Your task to perform on an android device: What's the news in Bangladesh? Image 0: 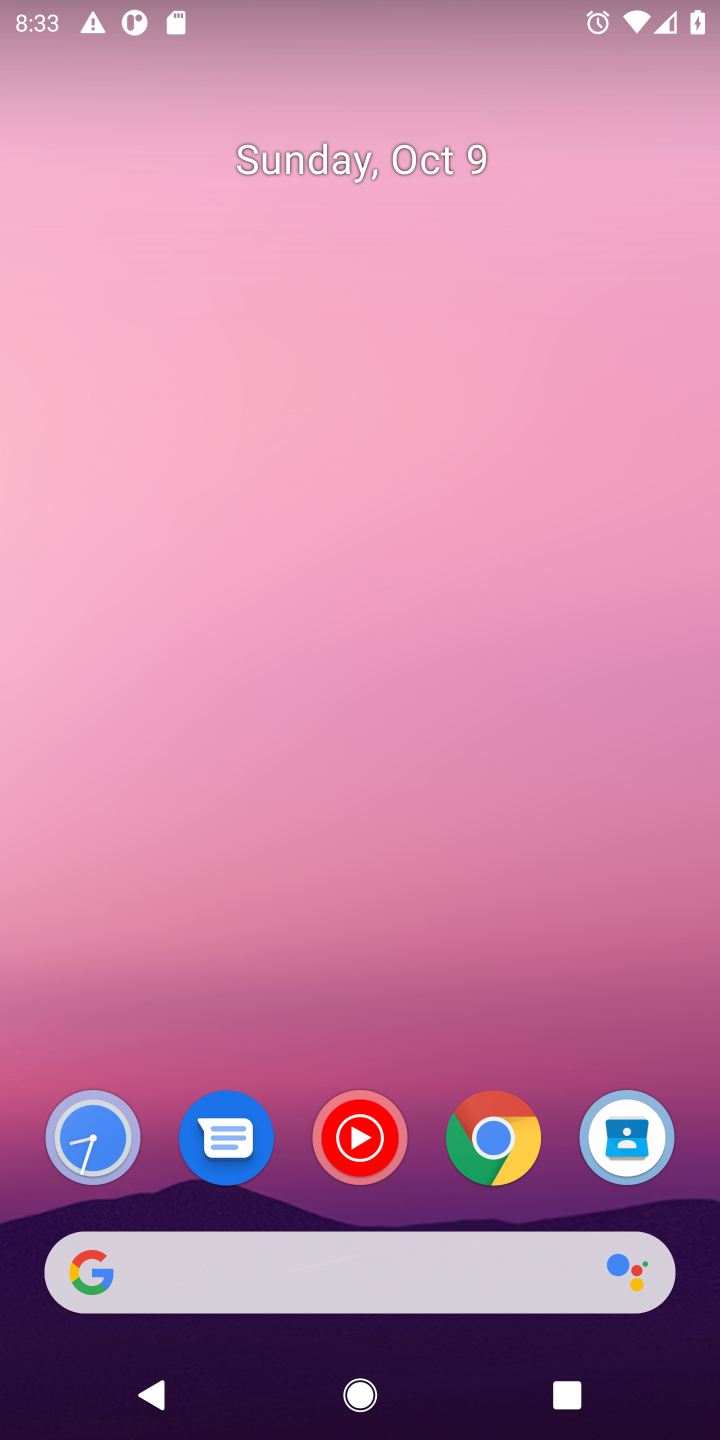
Step 0: click (298, 581)
Your task to perform on an android device: What's the news in Bangladesh? Image 1: 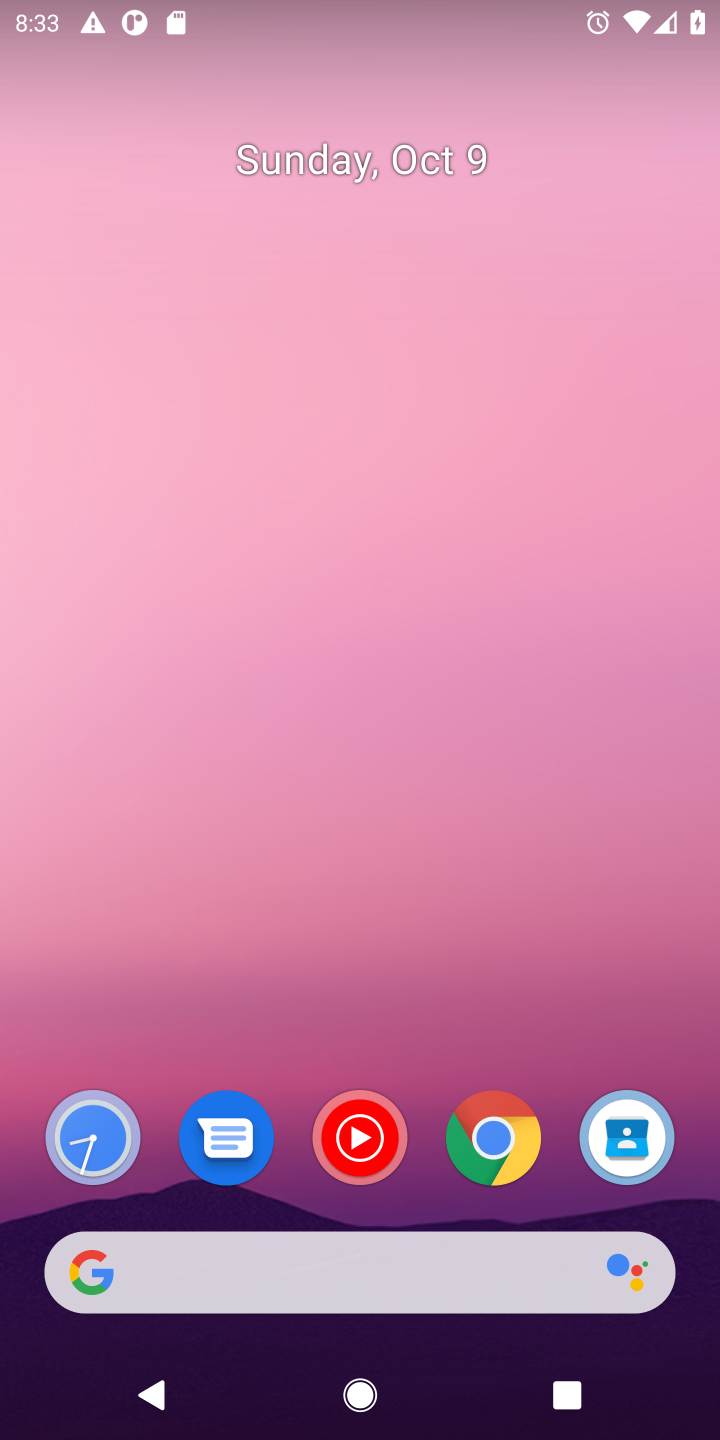
Step 1: drag from (328, 1262) to (325, 426)
Your task to perform on an android device: What's the news in Bangladesh? Image 2: 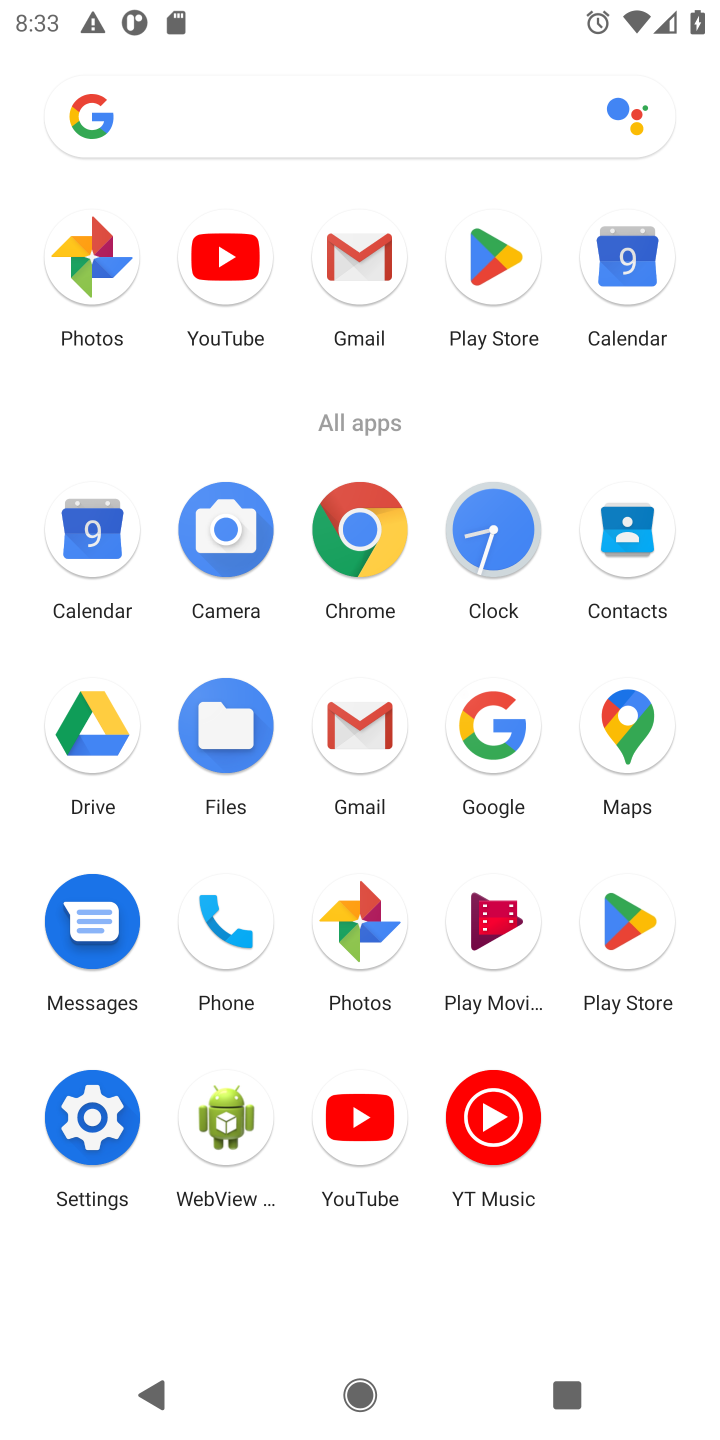
Step 2: click (479, 737)
Your task to perform on an android device: What's the news in Bangladesh? Image 3: 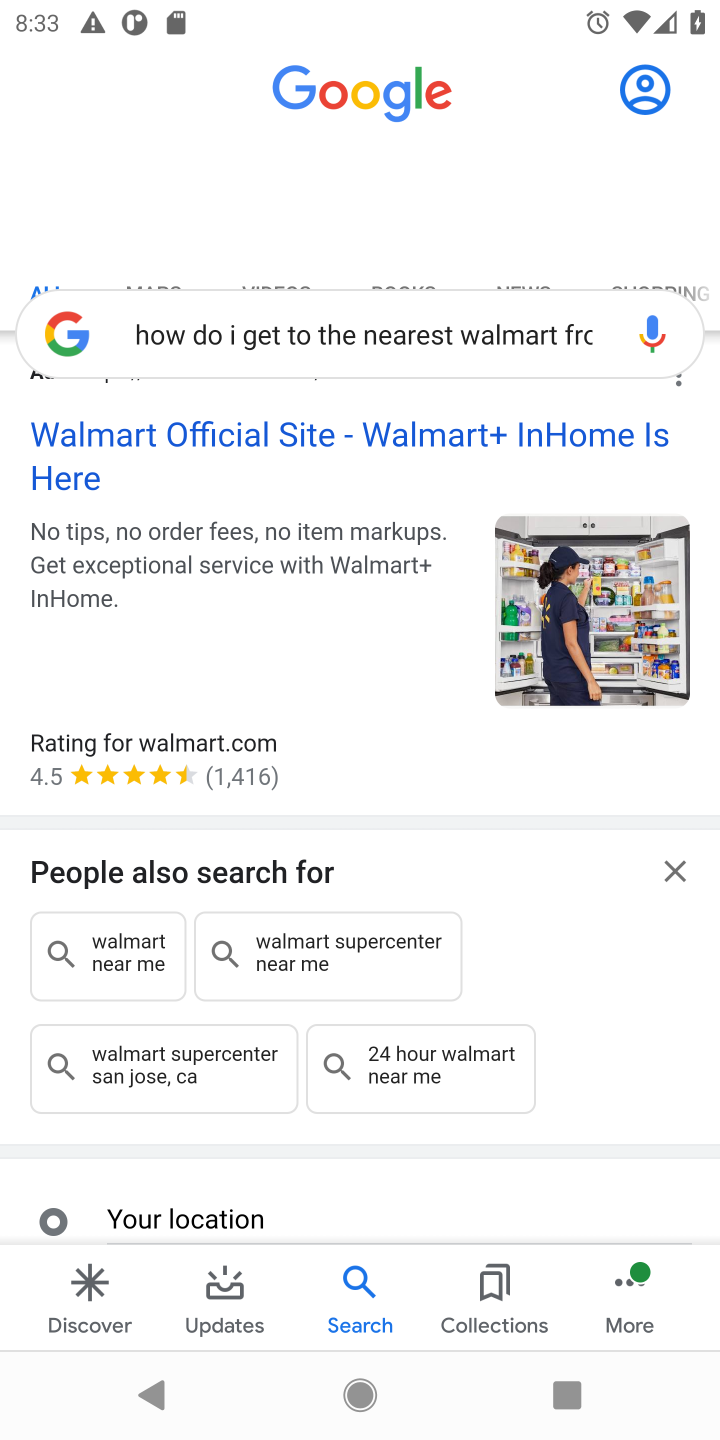
Step 3: click (345, 330)
Your task to perform on an android device: What's the news in Bangladesh? Image 4: 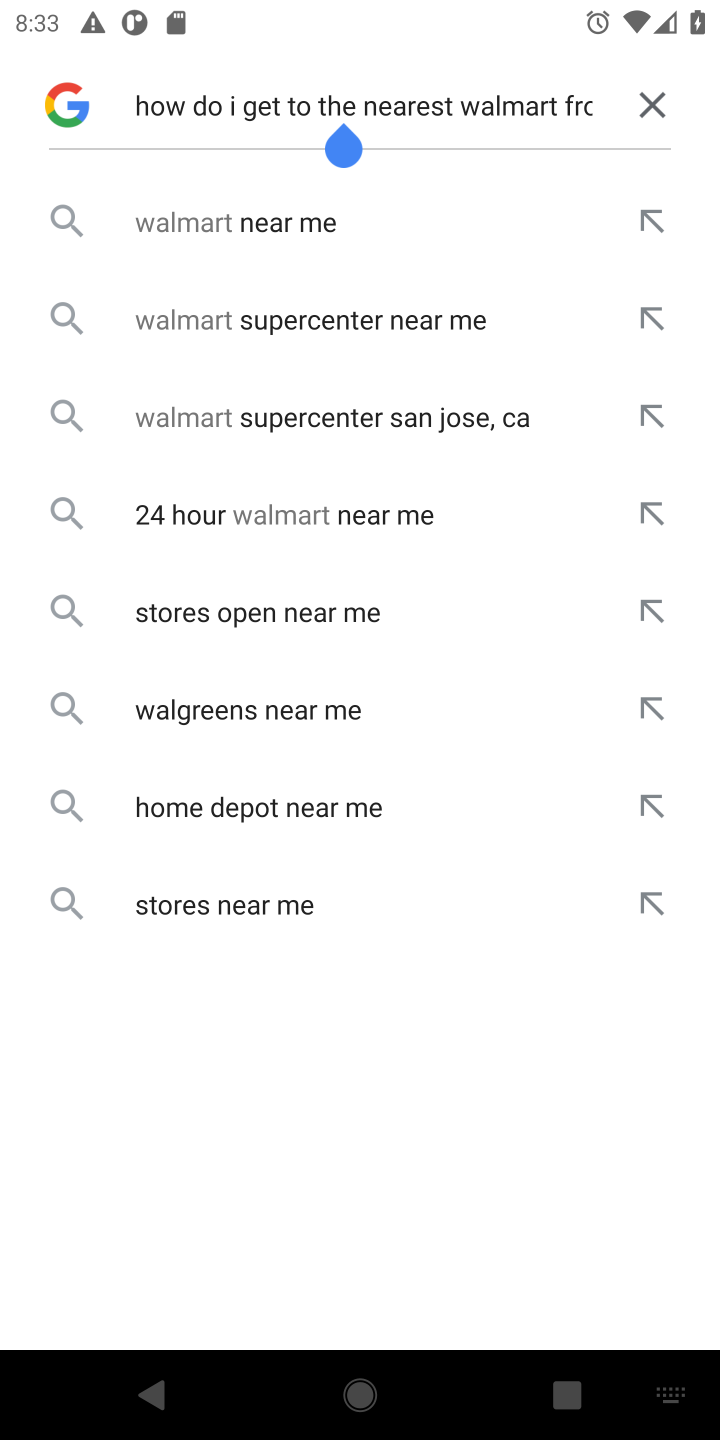
Step 4: click (636, 93)
Your task to perform on an android device: What's the news in Bangladesh? Image 5: 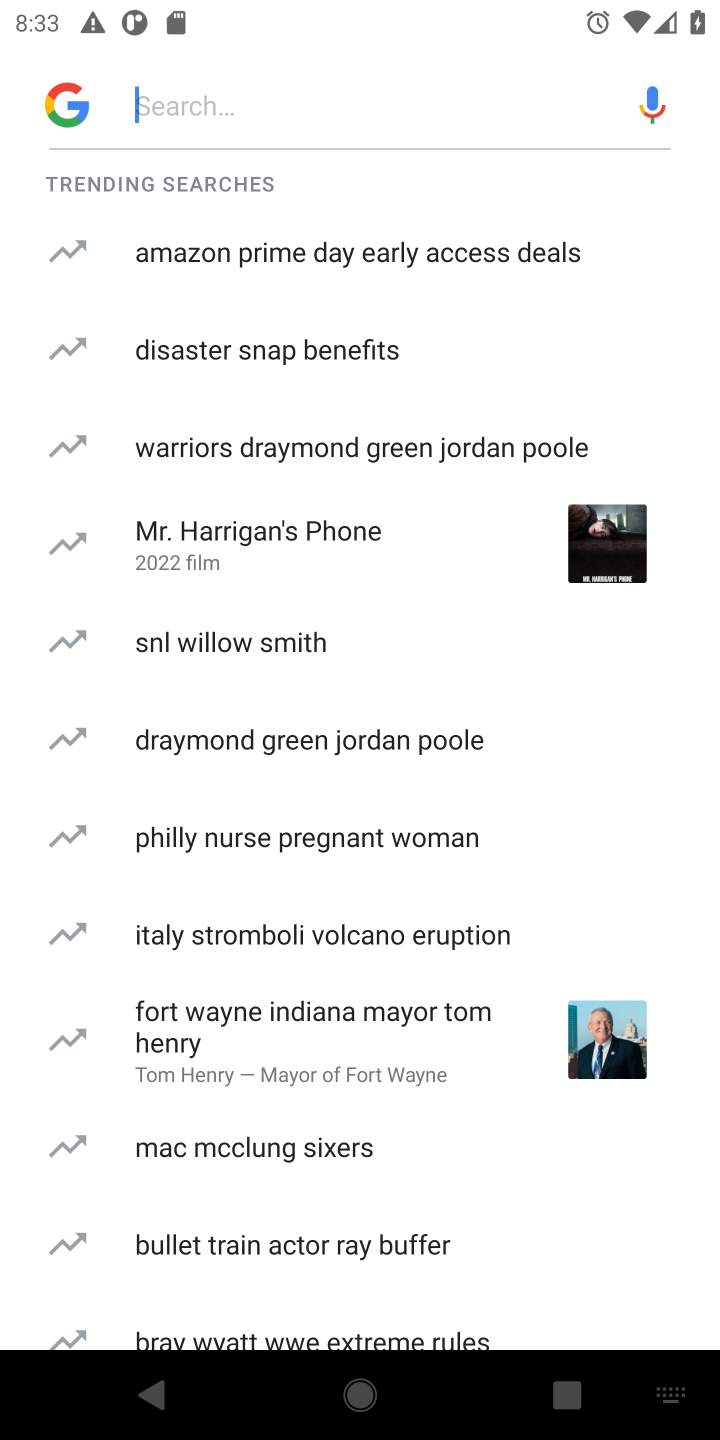
Step 5: click (325, 101)
Your task to perform on an android device: What's the news in Bangladesh? Image 6: 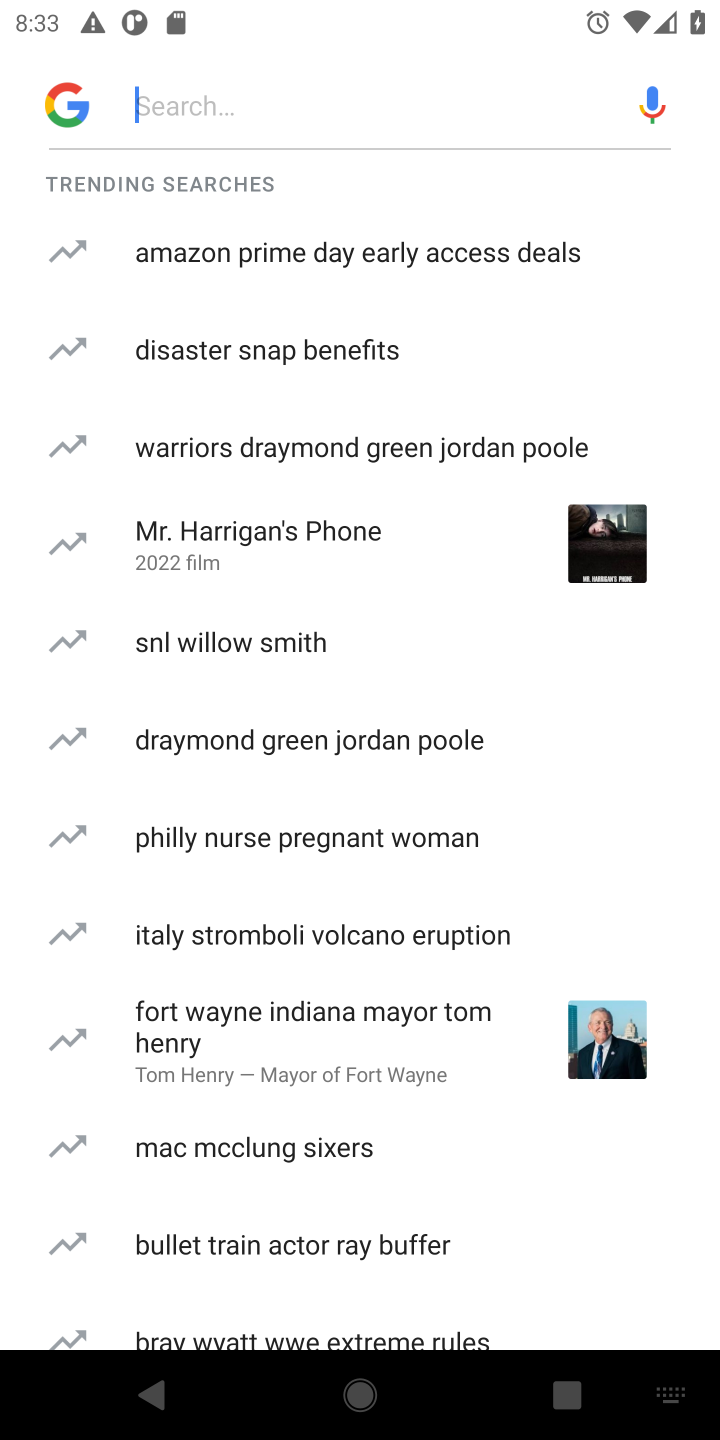
Step 6: type "What's the news in Bangladesh? "
Your task to perform on an android device: What's the news in Bangladesh? Image 7: 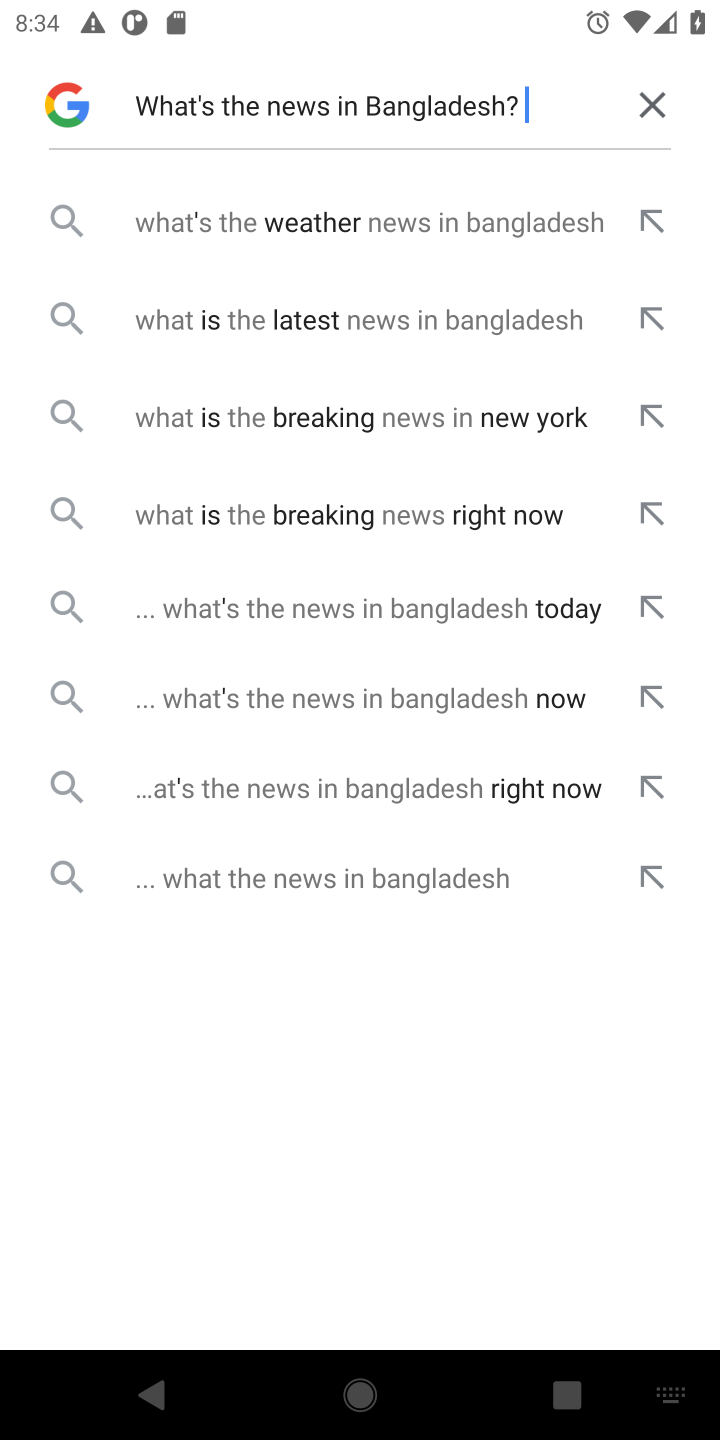
Step 7: click (296, 229)
Your task to perform on an android device: What's the news in Bangladesh? Image 8: 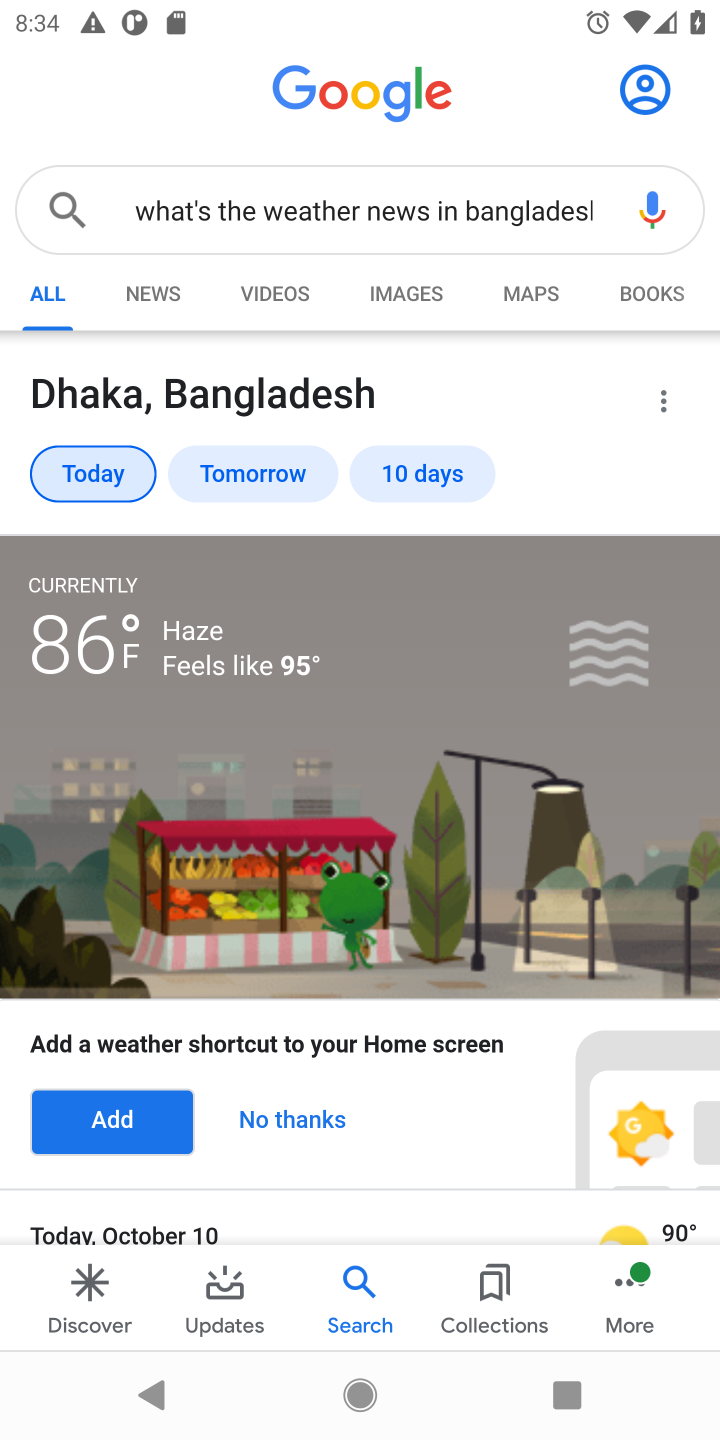
Step 8: drag from (288, 1130) to (339, 459)
Your task to perform on an android device: What's the news in Bangladesh? Image 9: 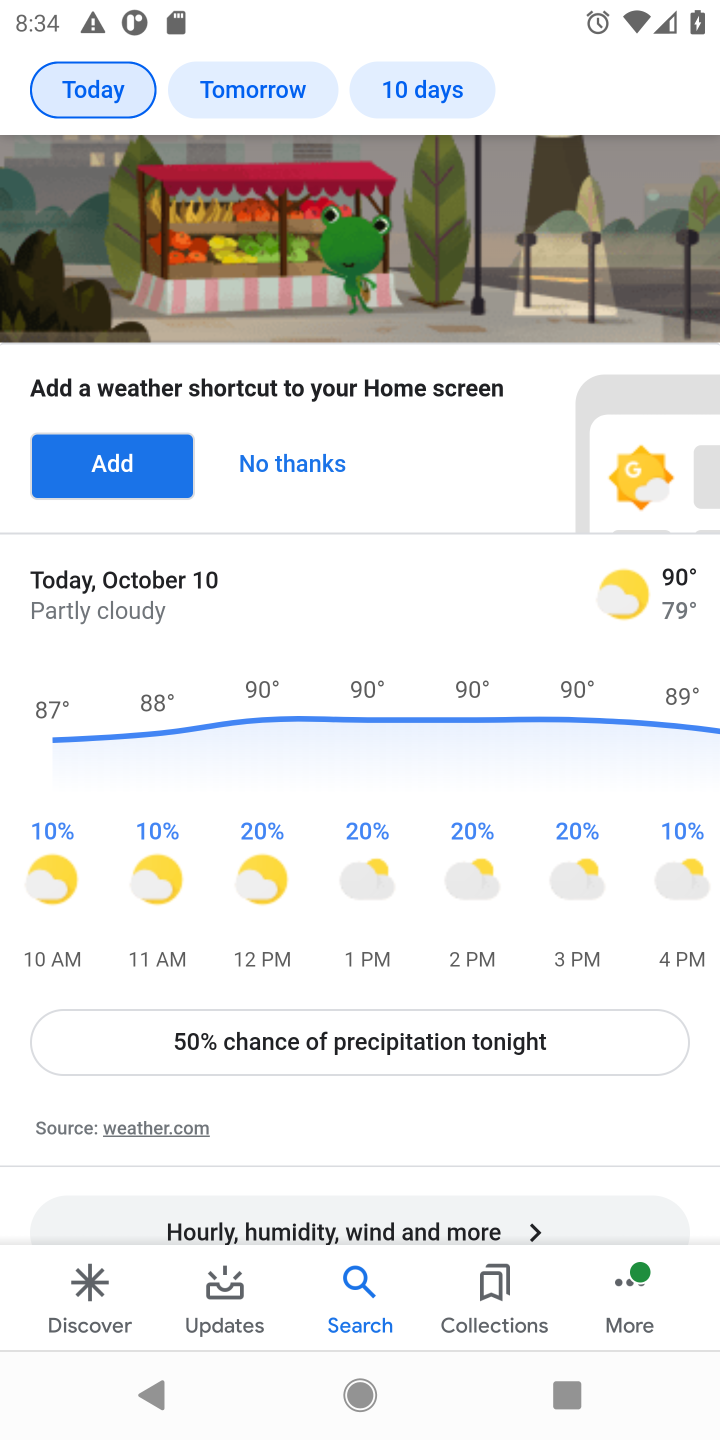
Step 9: click (272, 469)
Your task to perform on an android device: What's the news in Bangladesh? Image 10: 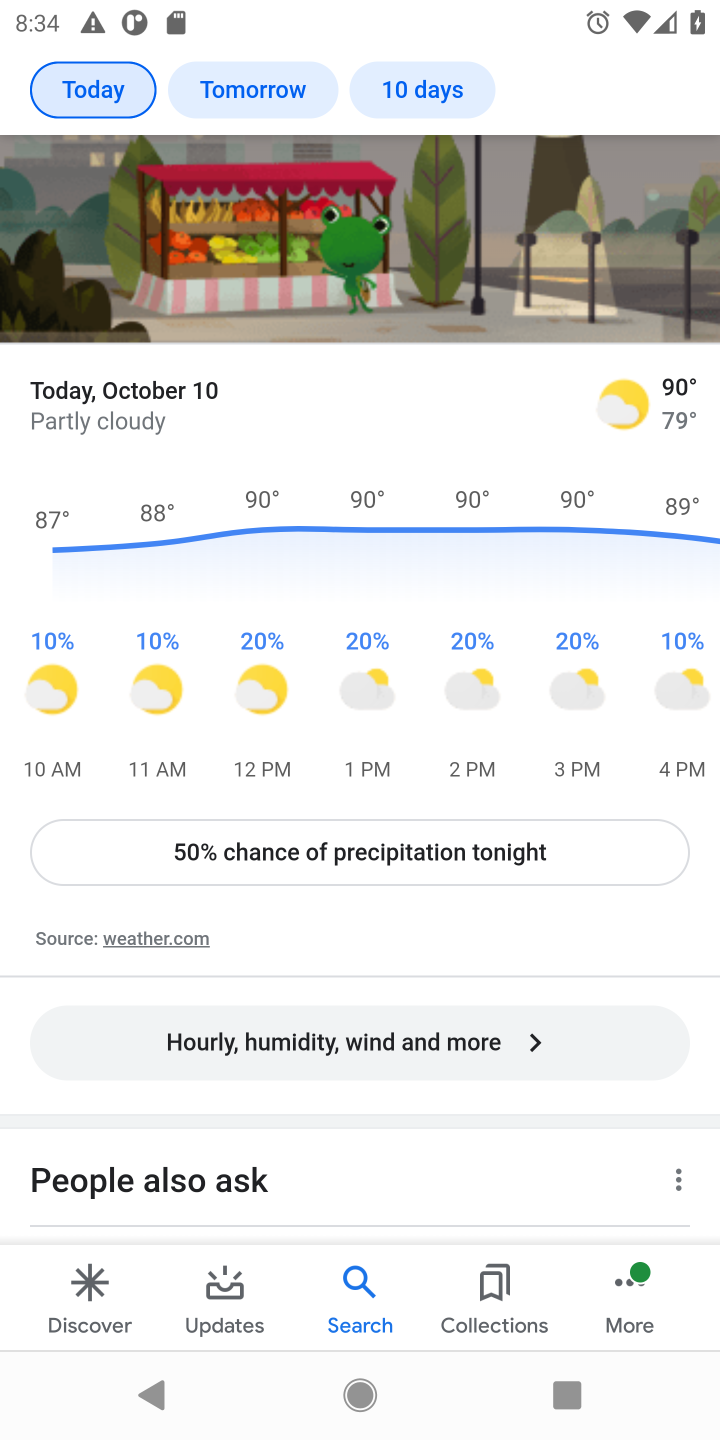
Step 10: drag from (258, 640) to (235, 1170)
Your task to perform on an android device: What's the news in Bangladesh? Image 11: 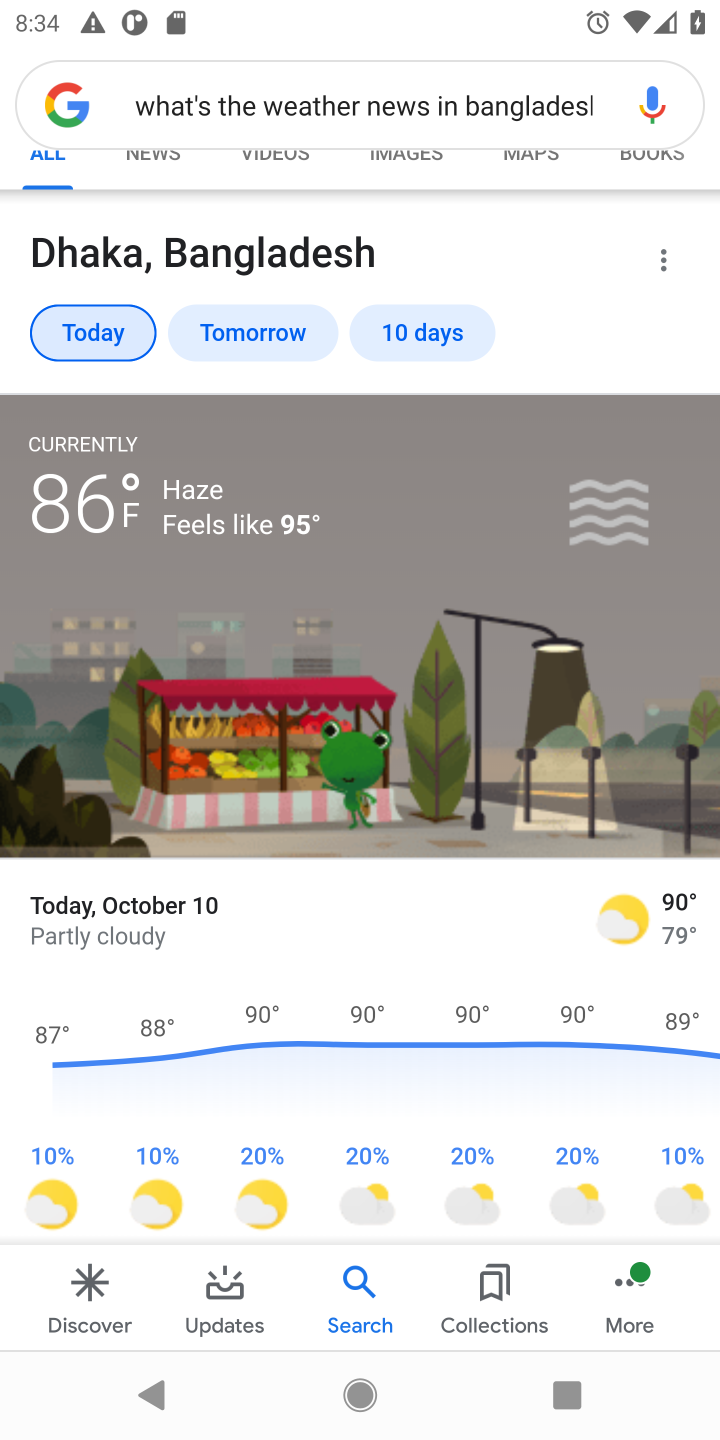
Step 11: click (489, 100)
Your task to perform on an android device: What's the news in Bangladesh? Image 12: 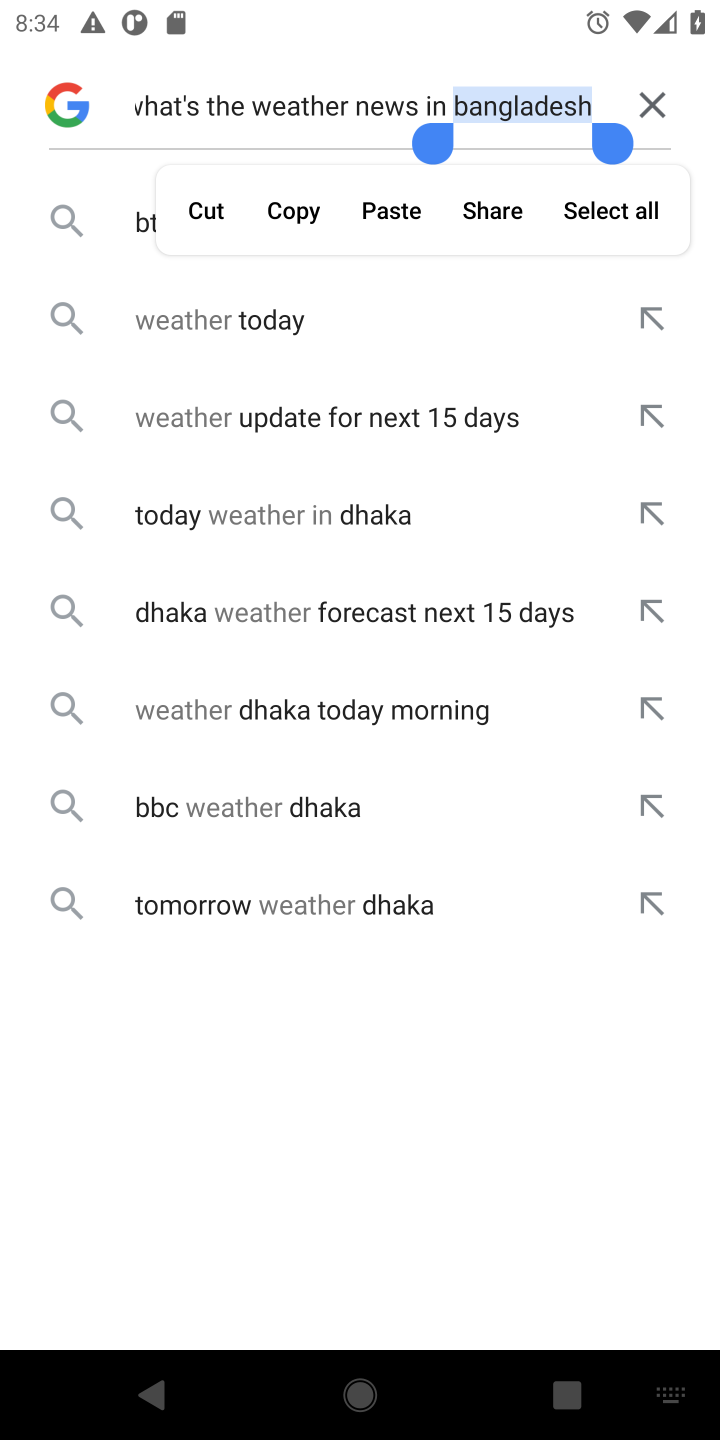
Step 12: click (638, 111)
Your task to perform on an android device: What's the news in Bangladesh? Image 13: 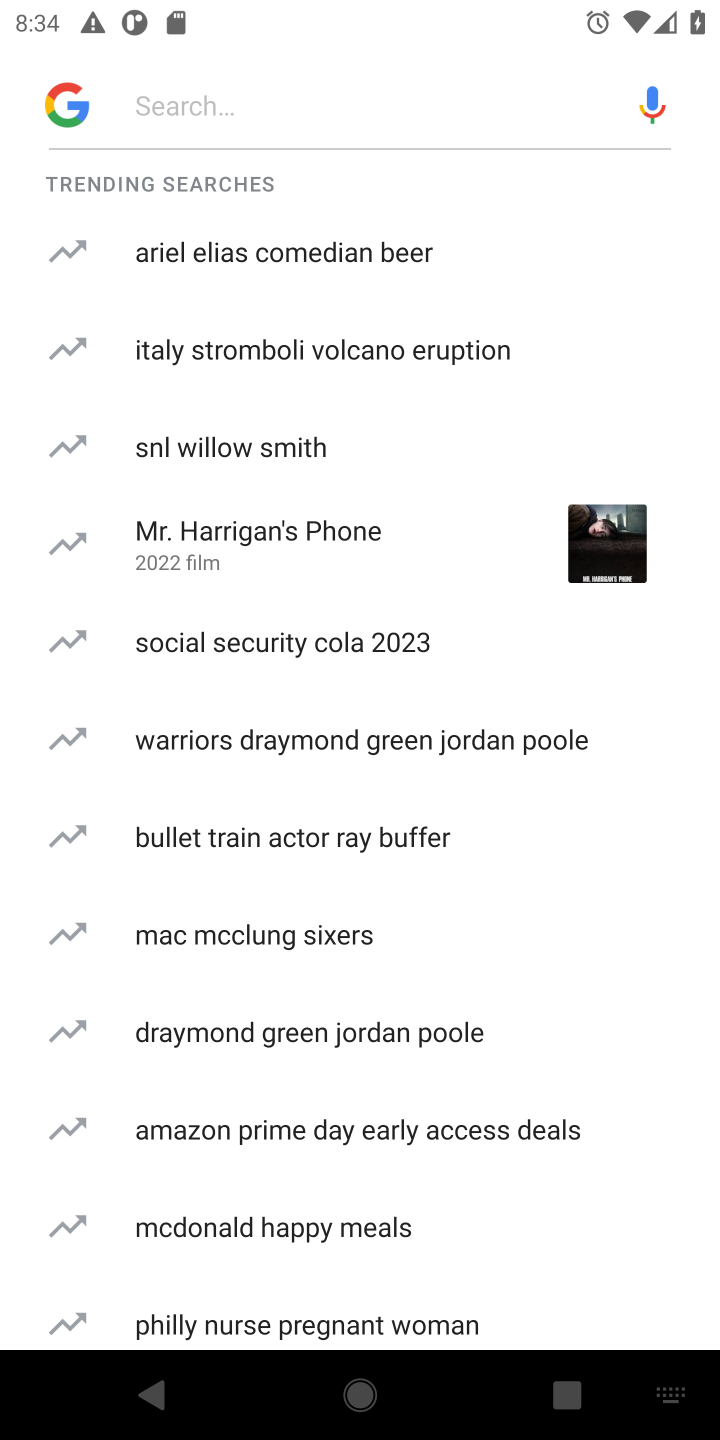
Step 13: click (328, 102)
Your task to perform on an android device: What's the news in Bangladesh? Image 14: 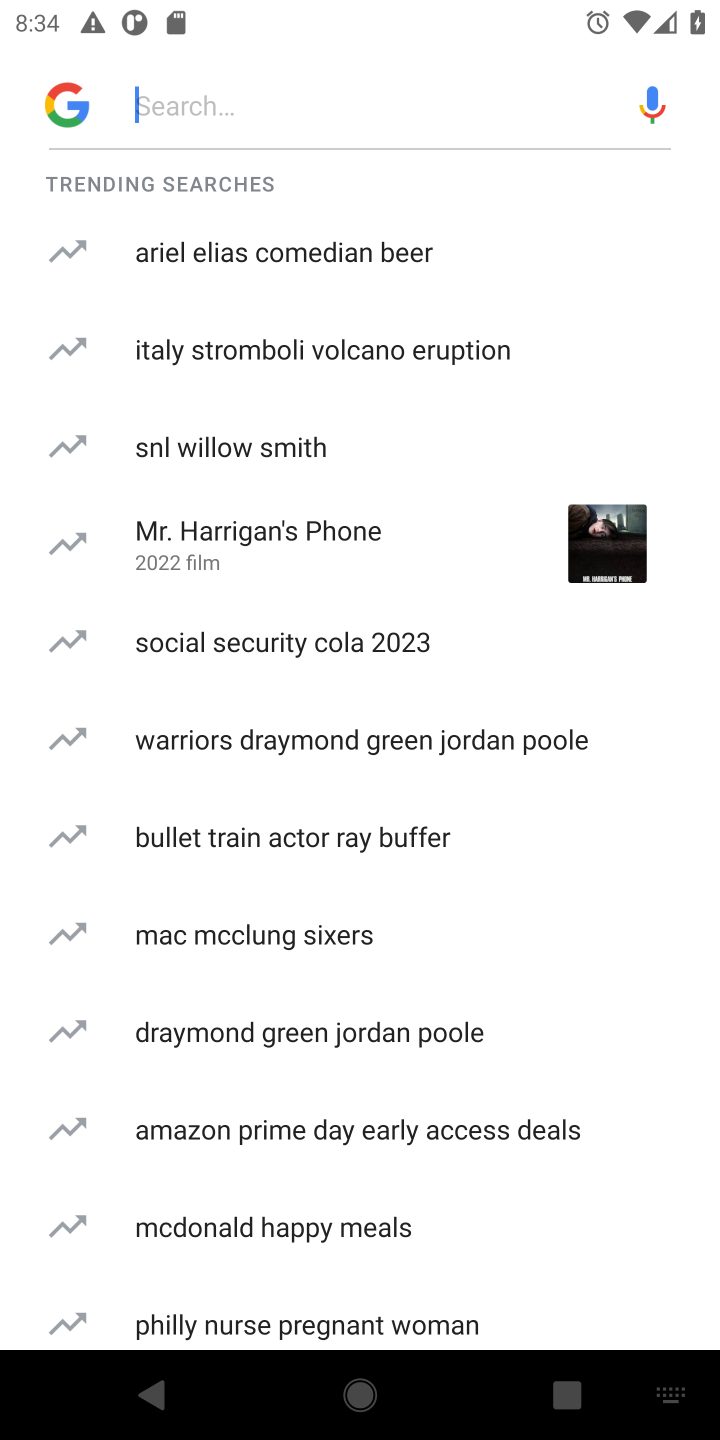
Step 14: type "What's the news in Bangladesh? "
Your task to perform on an android device: What's the news in Bangladesh? Image 15: 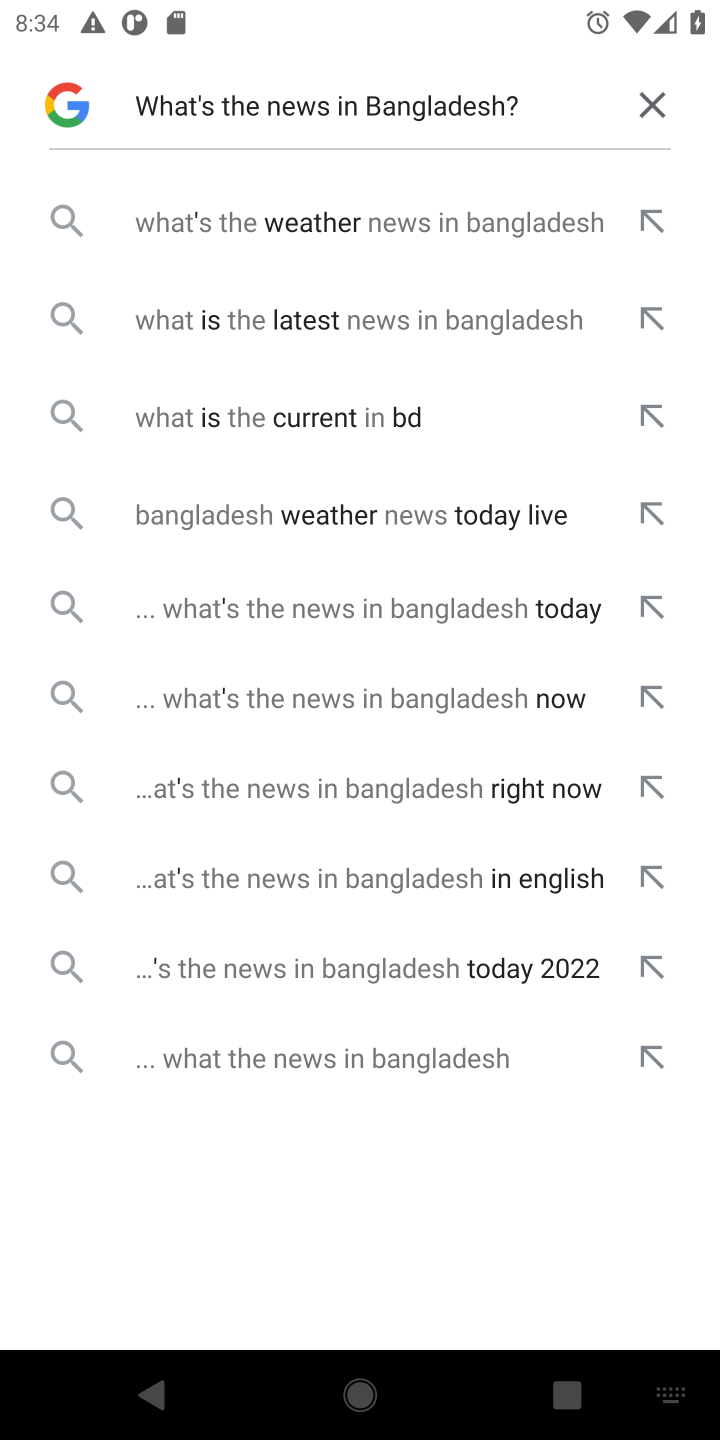
Step 15: click (353, 331)
Your task to perform on an android device: What's the news in Bangladesh? Image 16: 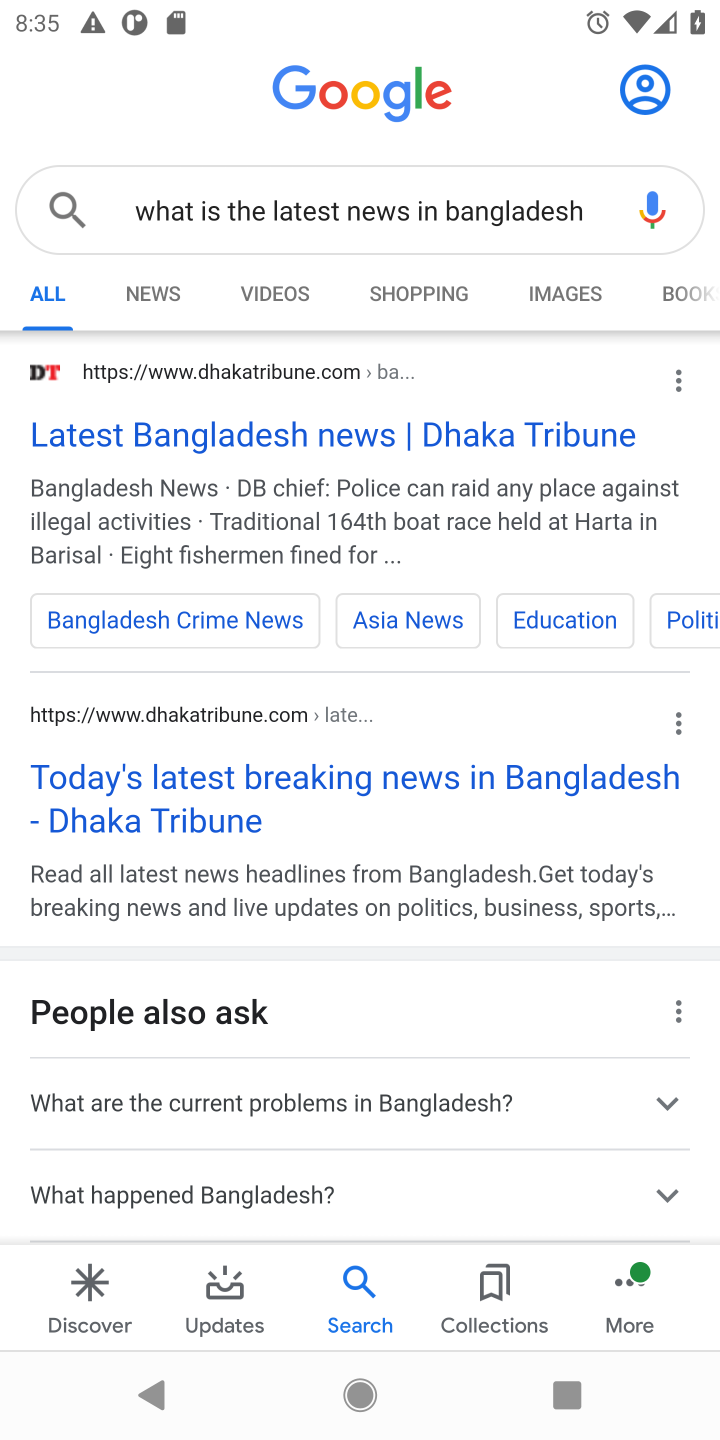
Step 16: click (328, 446)
Your task to perform on an android device: What's the news in Bangladesh? Image 17: 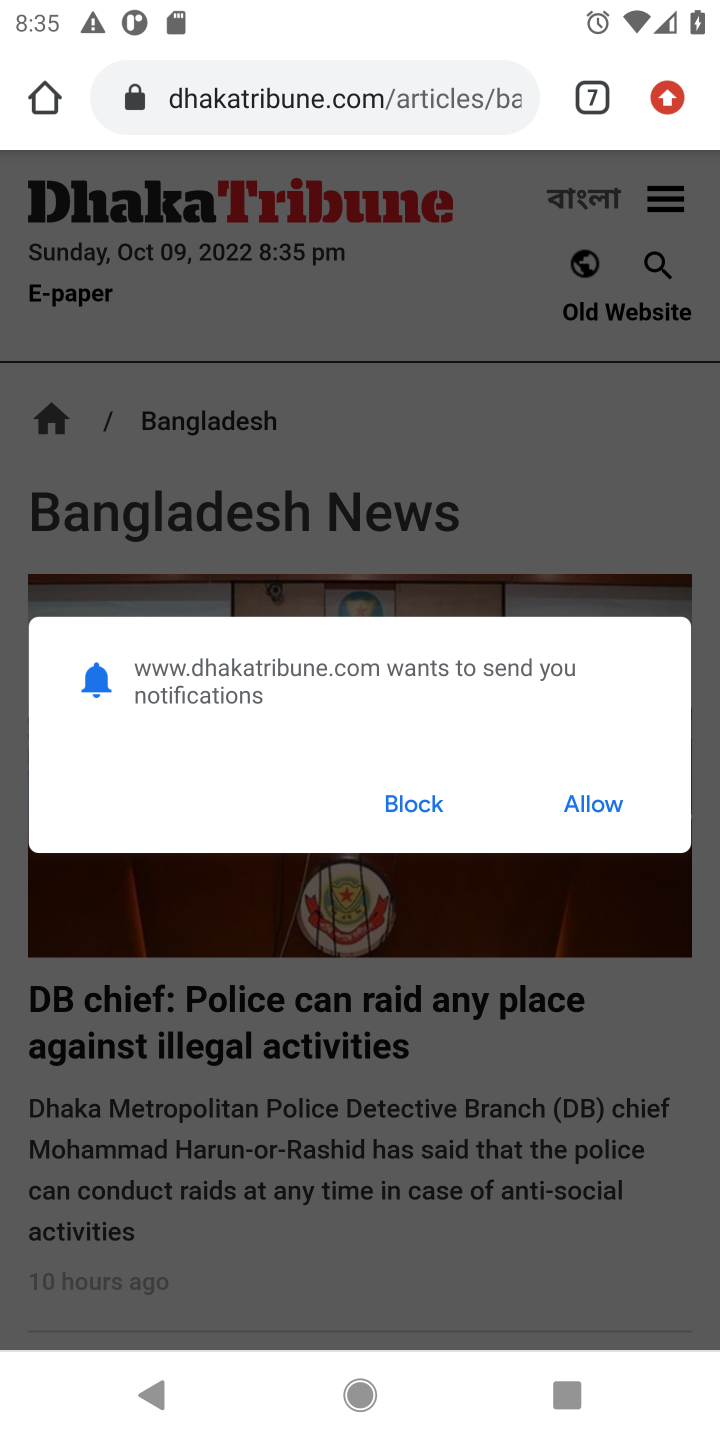
Step 17: click (599, 825)
Your task to perform on an android device: What's the news in Bangladesh? Image 18: 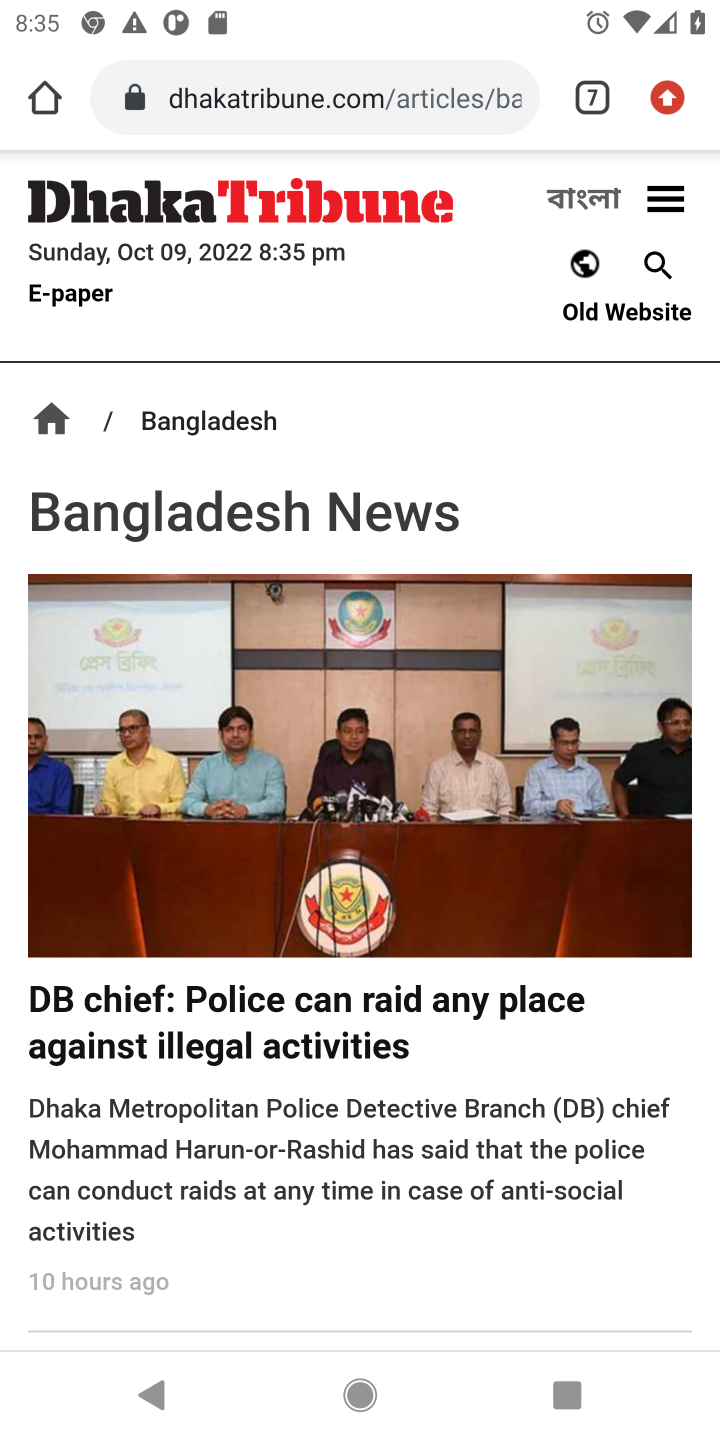
Step 18: task complete